Your task to perform on an android device: Search for "dell xps" on walmart, select the first entry, add it to the cart, then select checkout. Image 0: 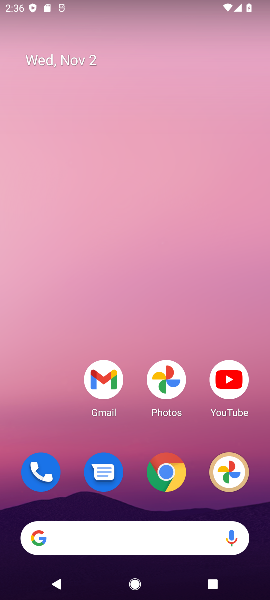
Step 0: click (166, 475)
Your task to perform on an android device: Search for "dell xps" on walmart, select the first entry, add it to the cart, then select checkout. Image 1: 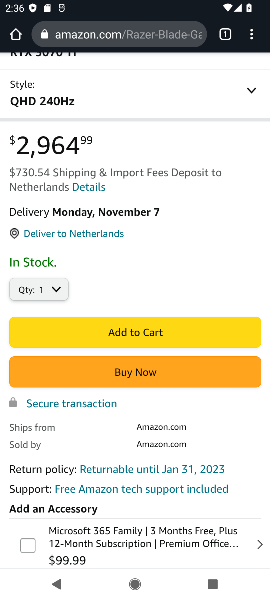
Step 1: click (95, 46)
Your task to perform on an android device: Search for "dell xps" on walmart, select the first entry, add it to the cart, then select checkout. Image 2: 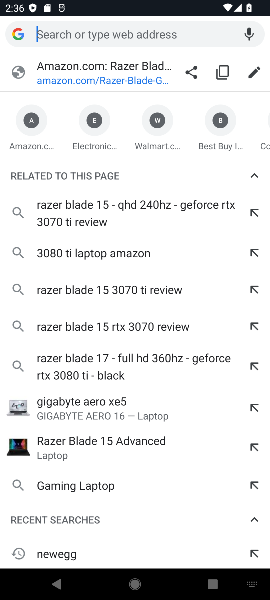
Step 2: type "walmart"
Your task to perform on an android device: Search for "dell xps" on walmart, select the first entry, add it to the cart, then select checkout. Image 3: 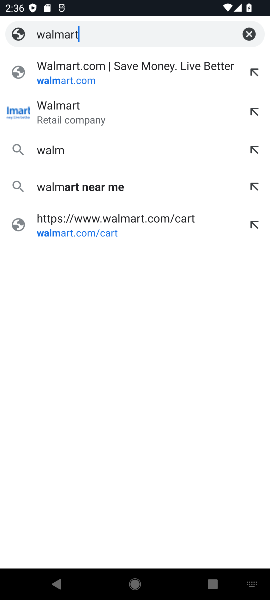
Step 3: type ""
Your task to perform on an android device: Search for "dell xps" on walmart, select the first entry, add it to the cart, then select checkout. Image 4: 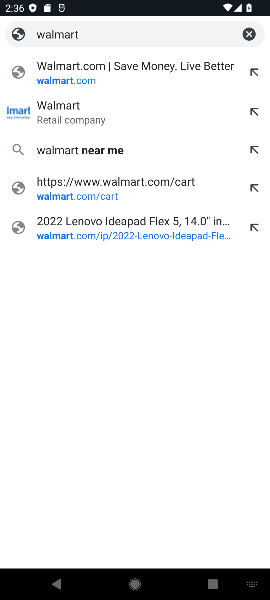
Step 4: click (73, 62)
Your task to perform on an android device: Search for "dell xps" on walmart, select the first entry, add it to the cart, then select checkout. Image 5: 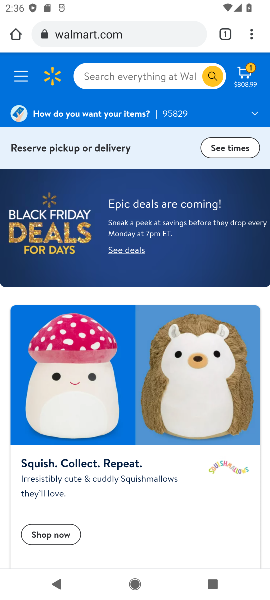
Step 5: click (102, 61)
Your task to perform on an android device: Search for "dell xps" on walmart, select the first entry, add it to the cart, then select checkout. Image 6: 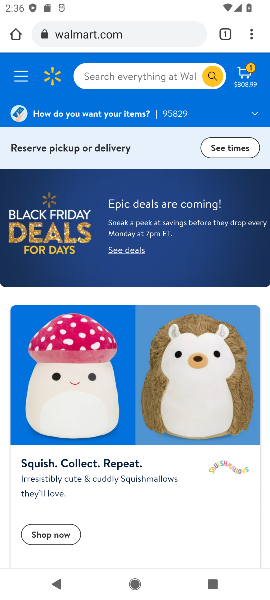
Step 6: click (100, 66)
Your task to perform on an android device: Search for "dell xps" on walmart, select the first entry, add it to the cart, then select checkout. Image 7: 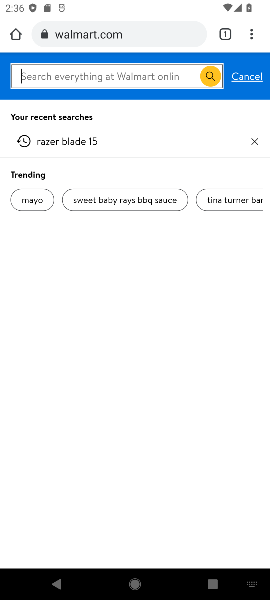
Step 7: type "dell xps"
Your task to perform on an android device: Search for "dell xps" on walmart, select the first entry, add it to the cart, then select checkout. Image 8: 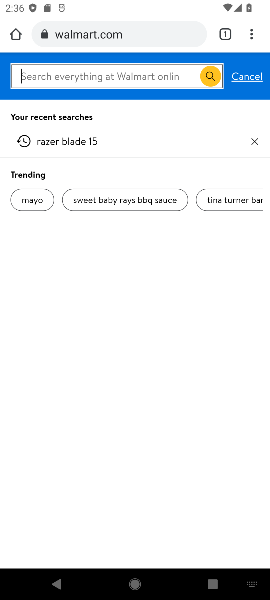
Step 8: type ""
Your task to perform on an android device: Search for "dell xps" on walmart, select the first entry, add it to the cart, then select checkout. Image 9: 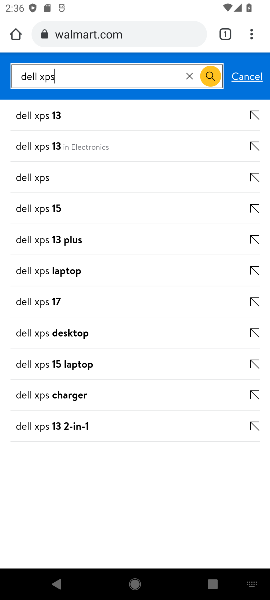
Step 9: click (69, 122)
Your task to perform on an android device: Search for "dell xps" on walmart, select the first entry, add it to the cart, then select checkout. Image 10: 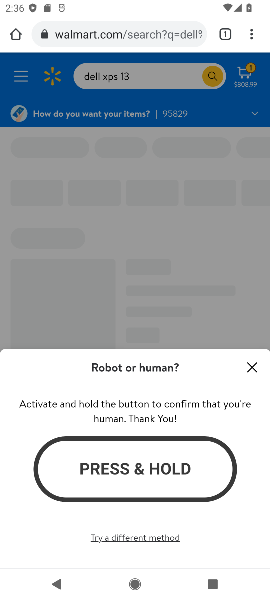
Step 10: click (160, 475)
Your task to perform on an android device: Search for "dell xps" on walmart, select the first entry, add it to the cart, then select checkout. Image 11: 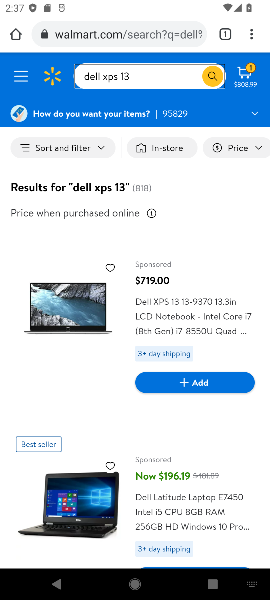
Step 11: click (182, 389)
Your task to perform on an android device: Search for "dell xps" on walmart, select the first entry, add it to the cart, then select checkout. Image 12: 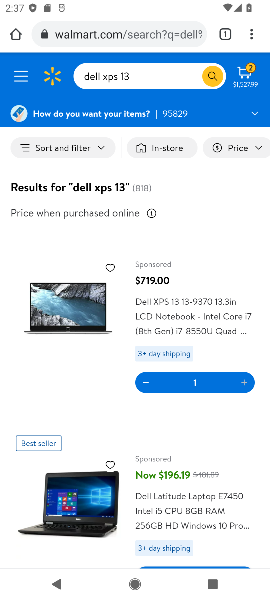
Step 12: click (240, 77)
Your task to perform on an android device: Search for "dell xps" on walmart, select the first entry, add it to the cart, then select checkout. Image 13: 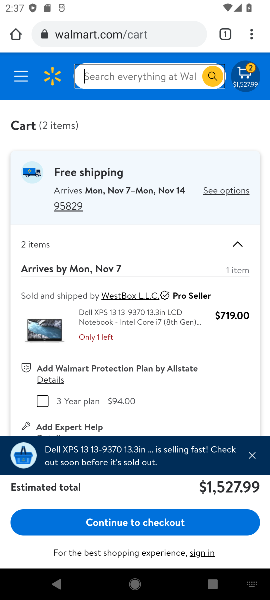
Step 13: drag from (218, 347) to (191, 88)
Your task to perform on an android device: Search for "dell xps" on walmart, select the first entry, add it to the cart, then select checkout. Image 14: 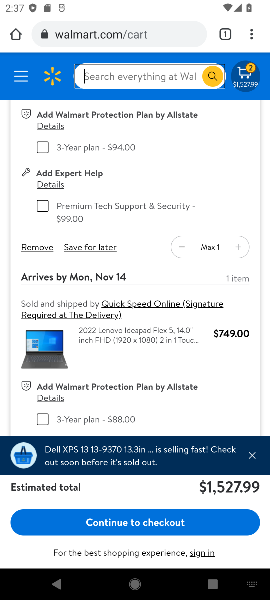
Step 14: click (165, 521)
Your task to perform on an android device: Search for "dell xps" on walmart, select the first entry, add it to the cart, then select checkout. Image 15: 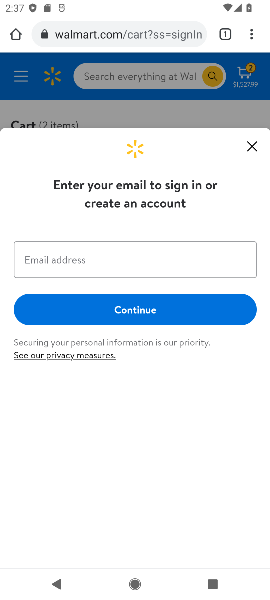
Step 15: click (248, 145)
Your task to perform on an android device: Search for "dell xps" on walmart, select the first entry, add it to the cart, then select checkout. Image 16: 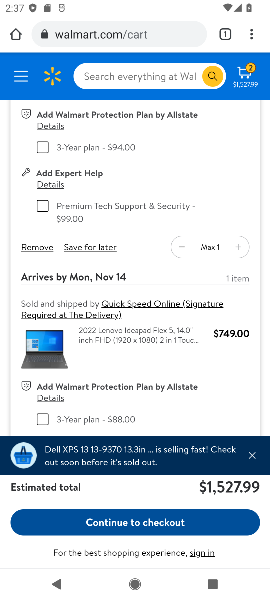
Step 16: drag from (215, 378) to (217, 100)
Your task to perform on an android device: Search for "dell xps" on walmart, select the first entry, add it to the cart, then select checkout. Image 17: 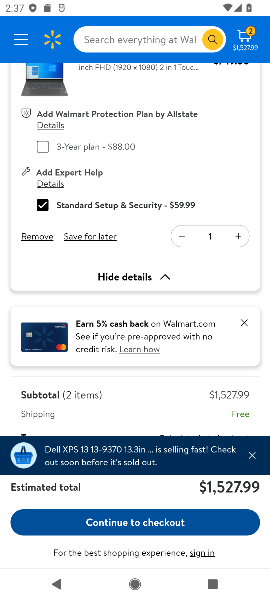
Step 17: click (152, 481)
Your task to perform on an android device: Search for "dell xps" on walmart, select the first entry, add it to the cart, then select checkout. Image 18: 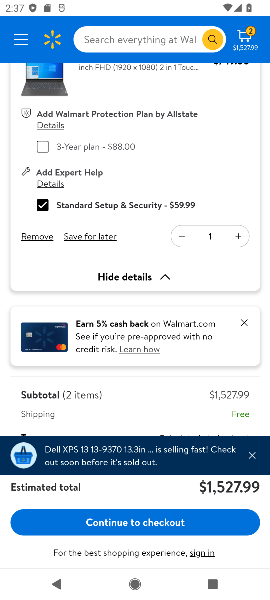
Step 18: click (151, 519)
Your task to perform on an android device: Search for "dell xps" on walmart, select the first entry, add it to the cart, then select checkout. Image 19: 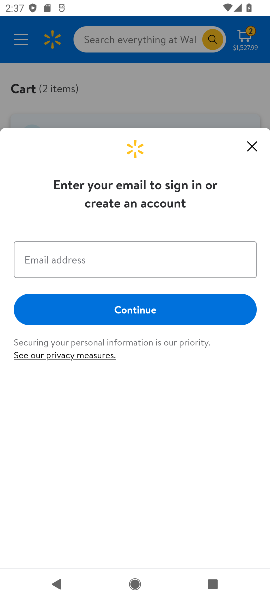
Step 19: click (262, 144)
Your task to perform on an android device: Search for "dell xps" on walmart, select the first entry, add it to the cart, then select checkout. Image 20: 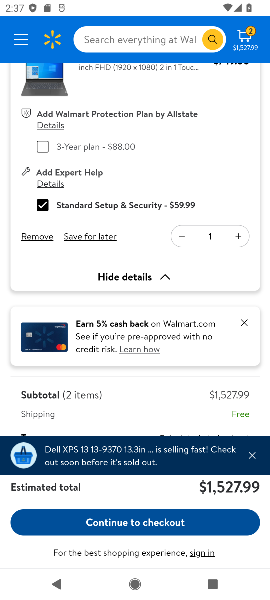
Step 20: click (250, 457)
Your task to perform on an android device: Search for "dell xps" on walmart, select the first entry, add it to the cart, then select checkout. Image 21: 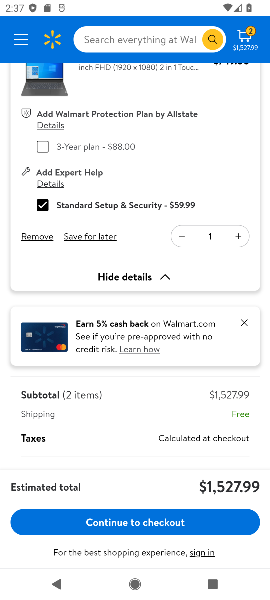
Step 21: drag from (214, 443) to (169, 165)
Your task to perform on an android device: Search for "dell xps" on walmart, select the first entry, add it to the cart, then select checkout. Image 22: 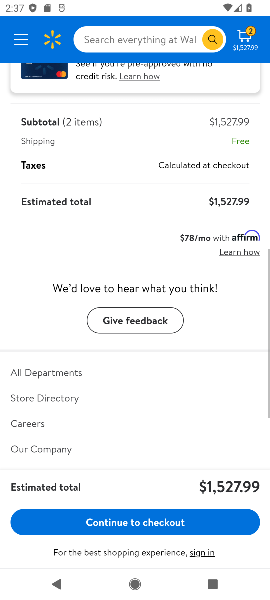
Step 22: drag from (138, 390) to (140, 167)
Your task to perform on an android device: Search for "dell xps" on walmart, select the first entry, add it to the cart, then select checkout. Image 23: 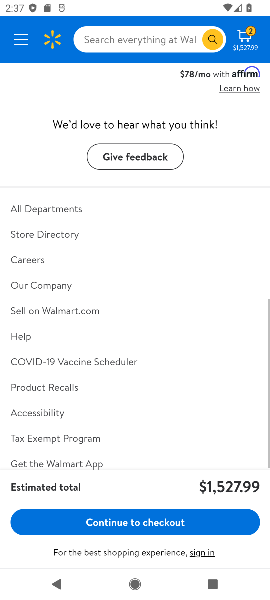
Step 23: drag from (141, 370) to (163, 171)
Your task to perform on an android device: Search for "dell xps" on walmart, select the first entry, add it to the cart, then select checkout. Image 24: 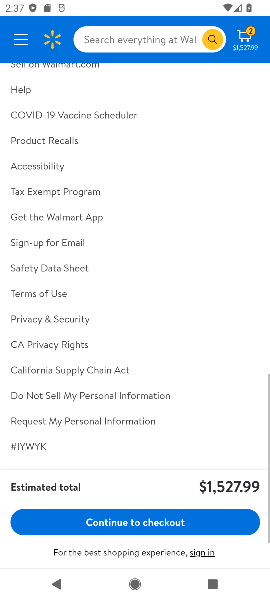
Step 24: drag from (144, 358) to (161, 193)
Your task to perform on an android device: Search for "dell xps" on walmart, select the first entry, add it to the cart, then select checkout. Image 25: 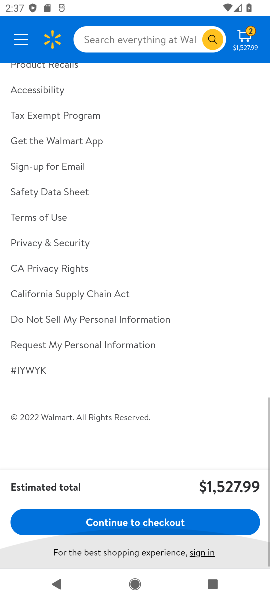
Step 25: drag from (171, 325) to (176, 431)
Your task to perform on an android device: Search for "dell xps" on walmart, select the first entry, add it to the cart, then select checkout. Image 26: 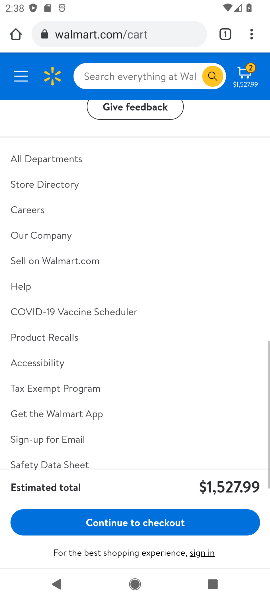
Step 26: drag from (166, 283) to (196, 439)
Your task to perform on an android device: Search for "dell xps" on walmart, select the first entry, add it to the cart, then select checkout. Image 27: 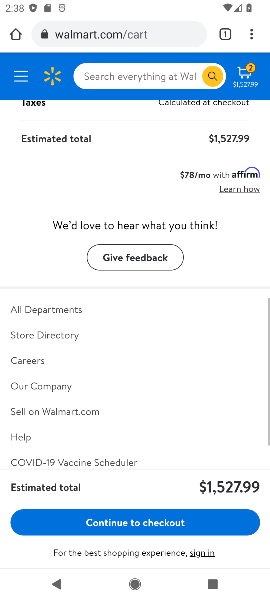
Step 27: drag from (144, 355) to (145, 456)
Your task to perform on an android device: Search for "dell xps" on walmart, select the first entry, add it to the cart, then select checkout. Image 28: 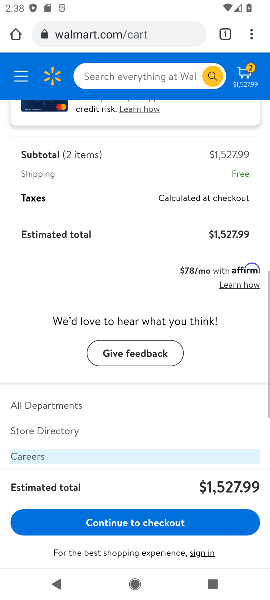
Step 28: drag from (170, 310) to (186, 407)
Your task to perform on an android device: Search for "dell xps" on walmart, select the first entry, add it to the cart, then select checkout. Image 29: 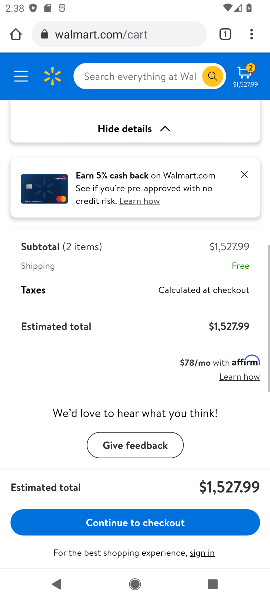
Step 29: drag from (185, 232) to (185, 406)
Your task to perform on an android device: Search for "dell xps" on walmart, select the first entry, add it to the cart, then select checkout. Image 30: 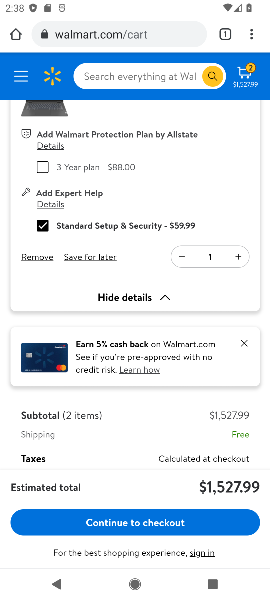
Step 30: click (245, 73)
Your task to perform on an android device: Search for "dell xps" on walmart, select the first entry, add it to the cart, then select checkout. Image 31: 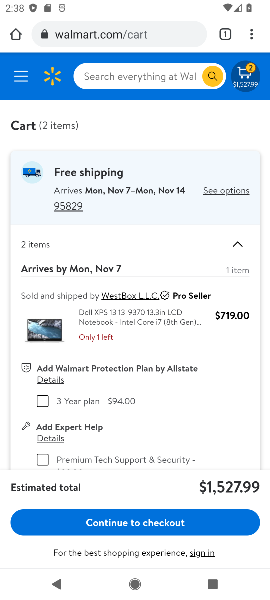
Step 31: click (104, 518)
Your task to perform on an android device: Search for "dell xps" on walmart, select the first entry, add it to the cart, then select checkout. Image 32: 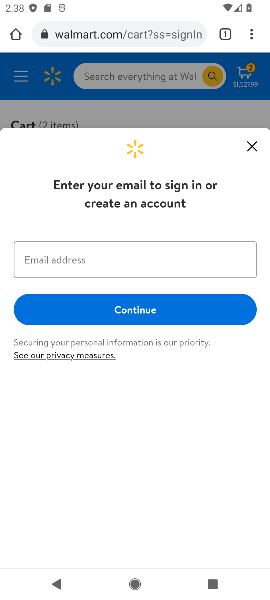
Step 32: click (250, 145)
Your task to perform on an android device: Search for "dell xps" on walmart, select the first entry, add it to the cart, then select checkout. Image 33: 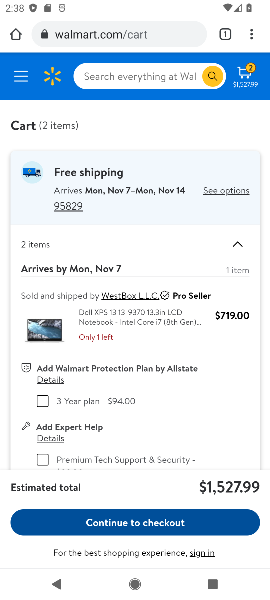
Step 33: task complete